Your task to perform on an android device: Open the Play Movies app and select the watchlist tab. Image 0: 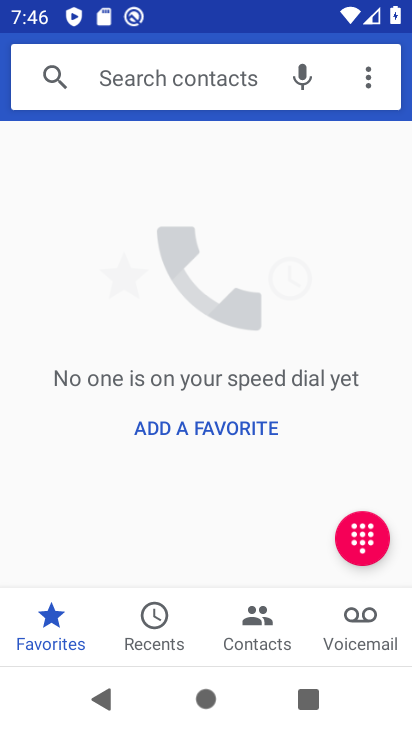
Step 0: press home button
Your task to perform on an android device: Open the Play Movies app and select the watchlist tab. Image 1: 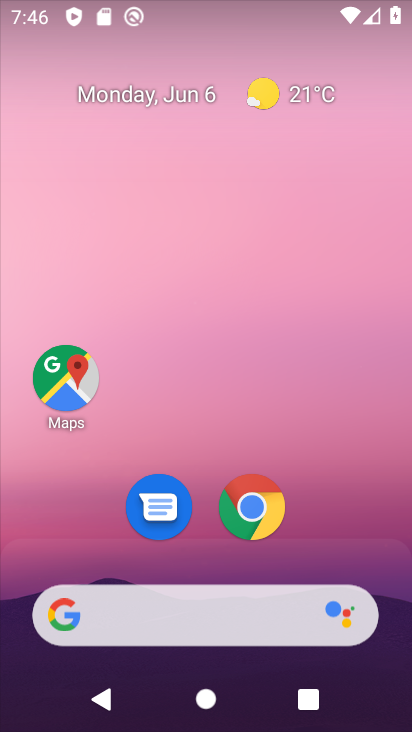
Step 1: drag from (213, 489) to (175, 37)
Your task to perform on an android device: Open the Play Movies app and select the watchlist tab. Image 2: 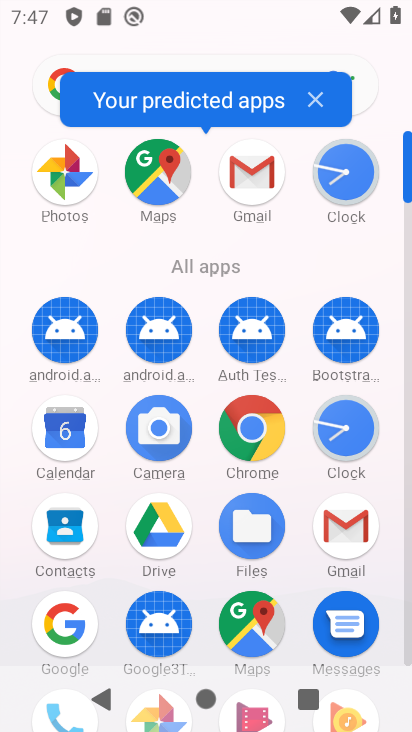
Step 2: drag from (299, 580) to (205, 264)
Your task to perform on an android device: Open the Play Movies app and select the watchlist tab. Image 3: 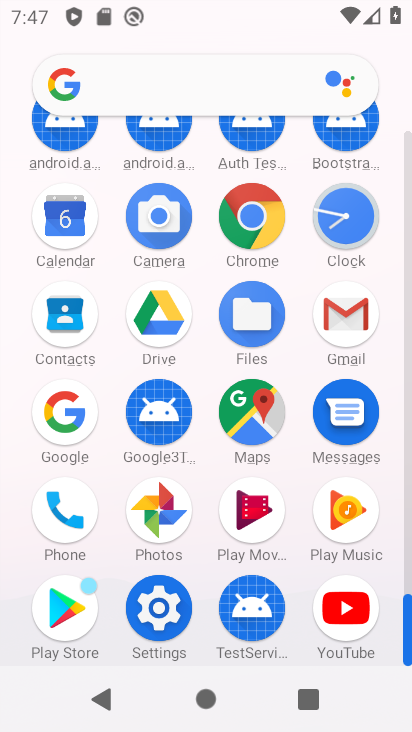
Step 3: click (244, 508)
Your task to perform on an android device: Open the Play Movies app and select the watchlist tab. Image 4: 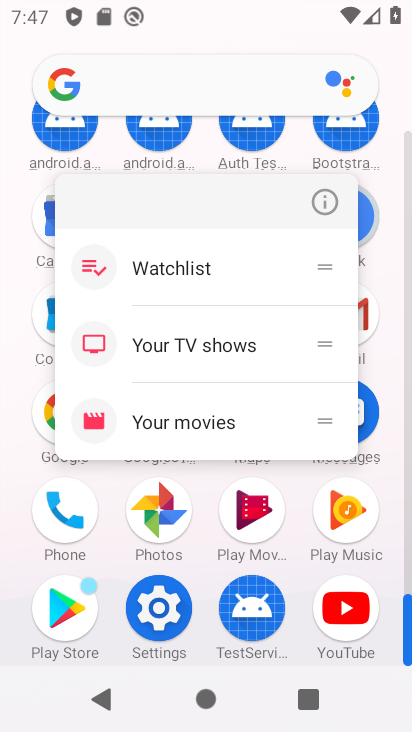
Step 4: click (244, 508)
Your task to perform on an android device: Open the Play Movies app and select the watchlist tab. Image 5: 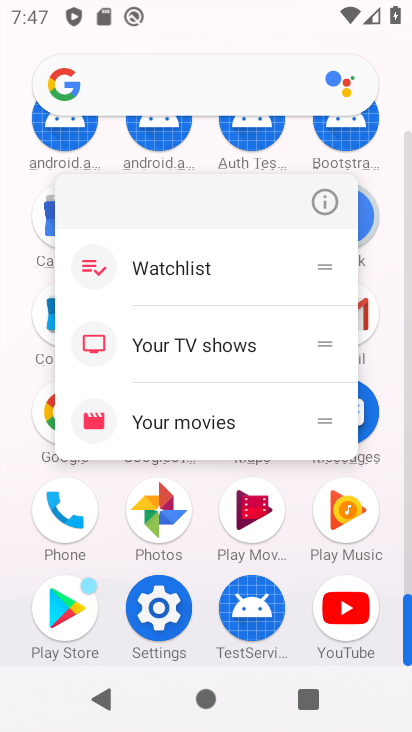
Step 5: click (244, 508)
Your task to perform on an android device: Open the Play Movies app and select the watchlist tab. Image 6: 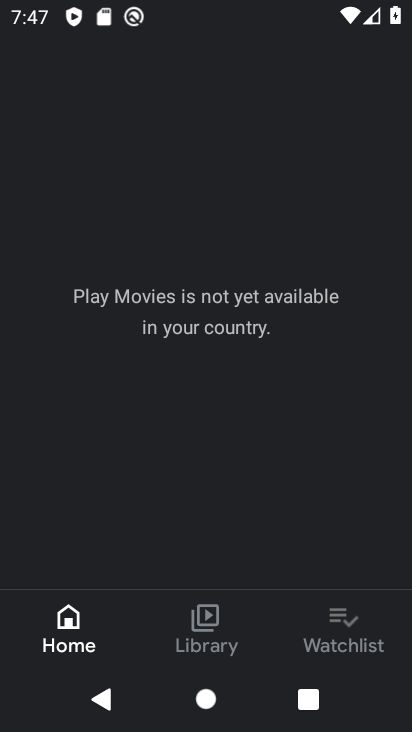
Step 6: click (333, 625)
Your task to perform on an android device: Open the Play Movies app and select the watchlist tab. Image 7: 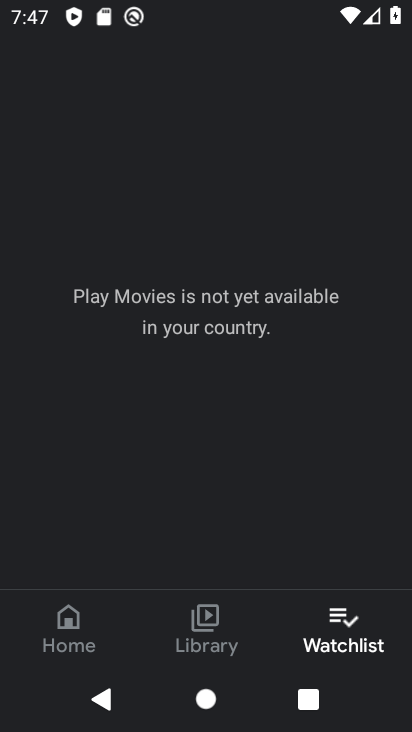
Step 7: task complete